Your task to perform on an android device: turn on location history Image 0: 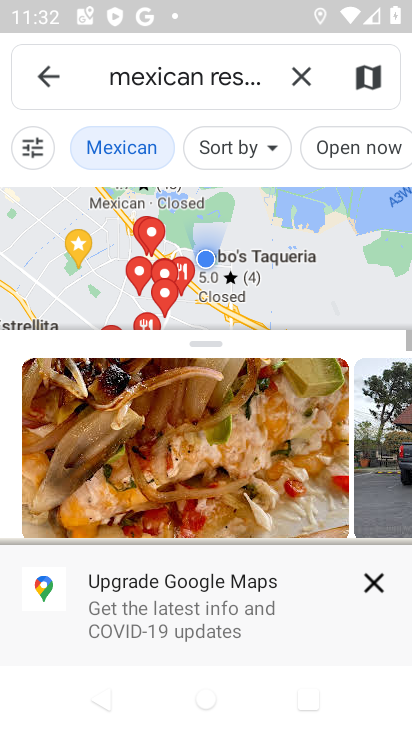
Step 0: press home button
Your task to perform on an android device: turn on location history Image 1: 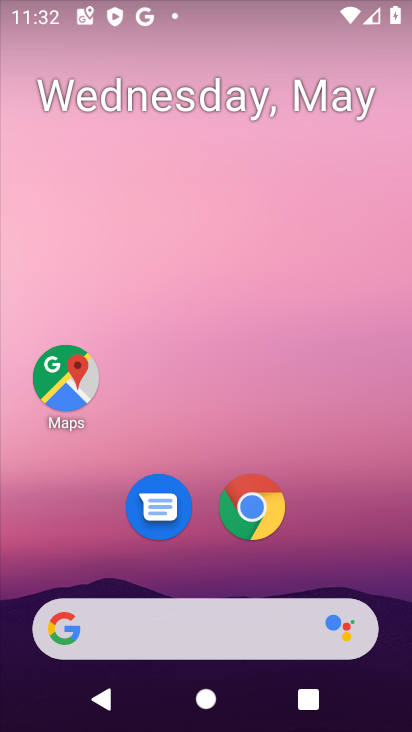
Step 1: click (56, 341)
Your task to perform on an android device: turn on location history Image 2: 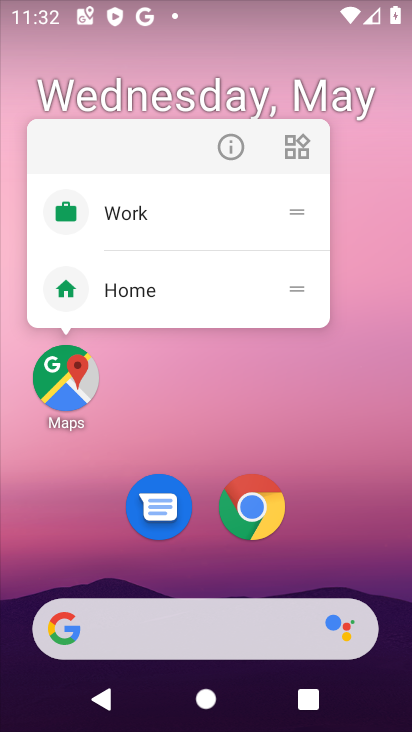
Step 2: click (58, 397)
Your task to perform on an android device: turn on location history Image 3: 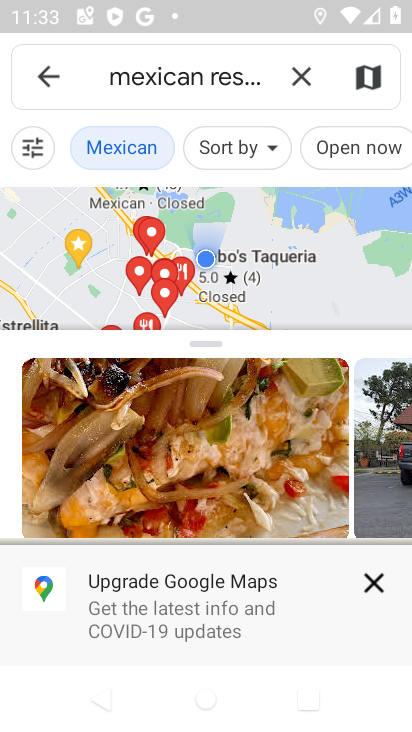
Step 3: click (56, 78)
Your task to perform on an android device: turn on location history Image 4: 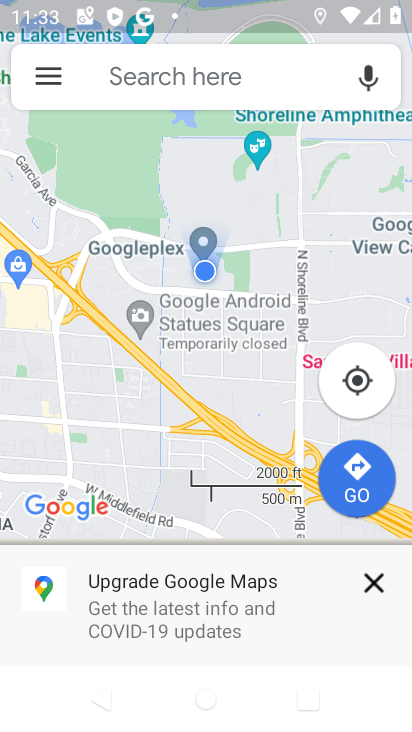
Step 4: click (52, 76)
Your task to perform on an android device: turn on location history Image 5: 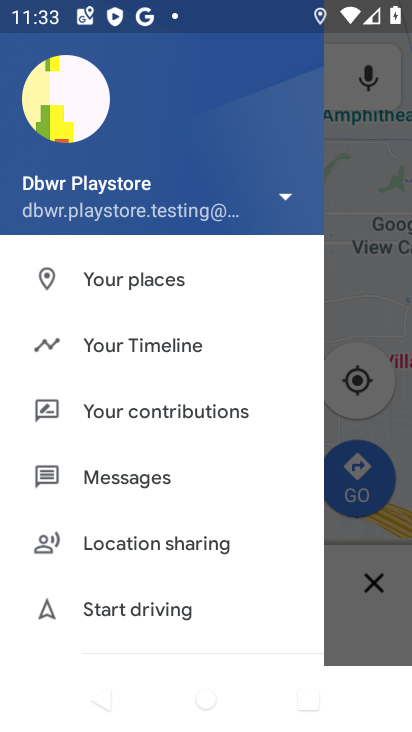
Step 5: drag from (144, 618) to (150, 726)
Your task to perform on an android device: turn on location history Image 6: 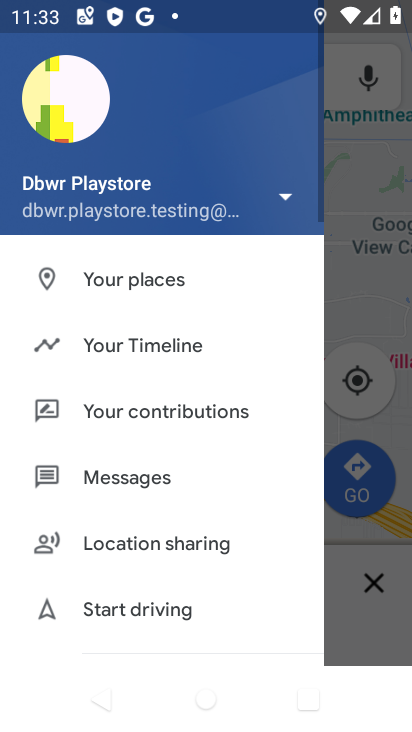
Step 6: click (105, 353)
Your task to perform on an android device: turn on location history Image 7: 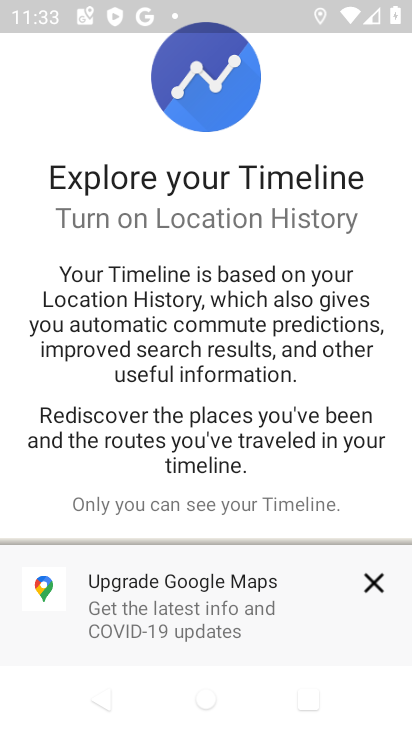
Step 7: click (393, 587)
Your task to perform on an android device: turn on location history Image 8: 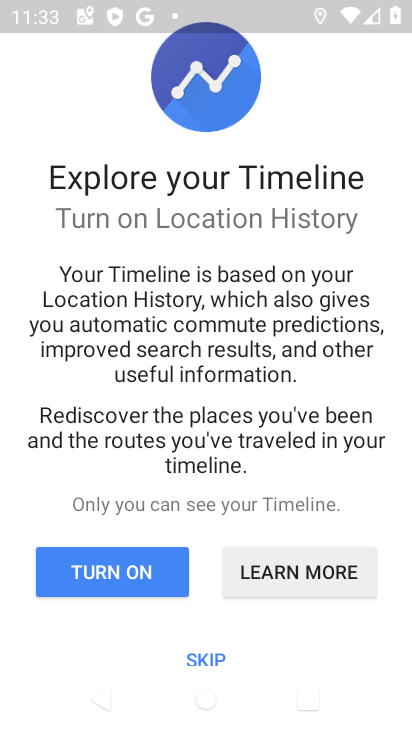
Step 8: click (105, 582)
Your task to perform on an android device: turn on location history Image 9: 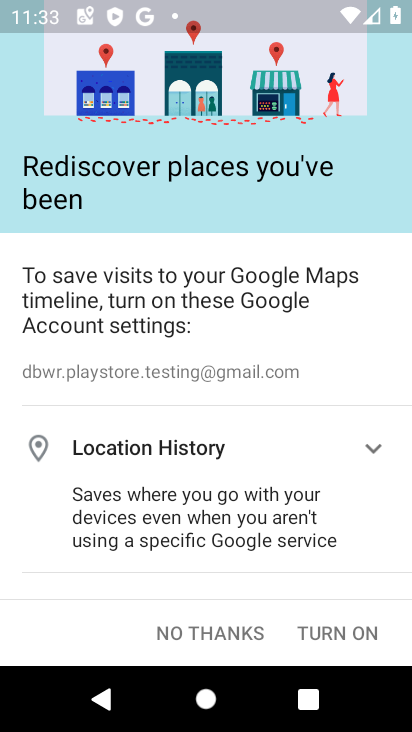
Step 9: drag from (278, 547) to (288, 199)
Your task to perform on an android device: turn on location history Image 10: 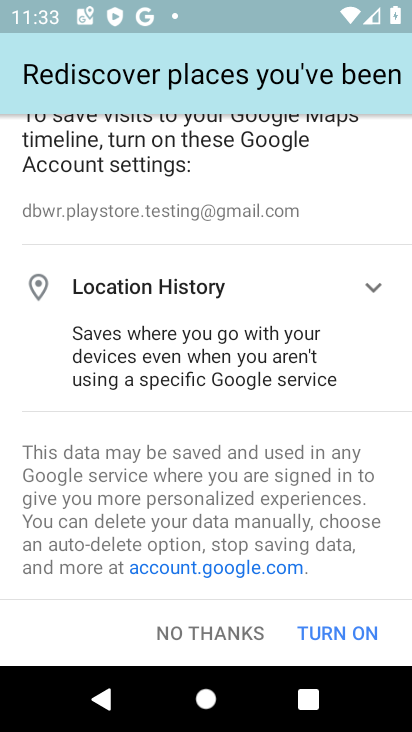
Step 10: click (343, 632)
Your task to perform on an android device: turn on location history Image 11: 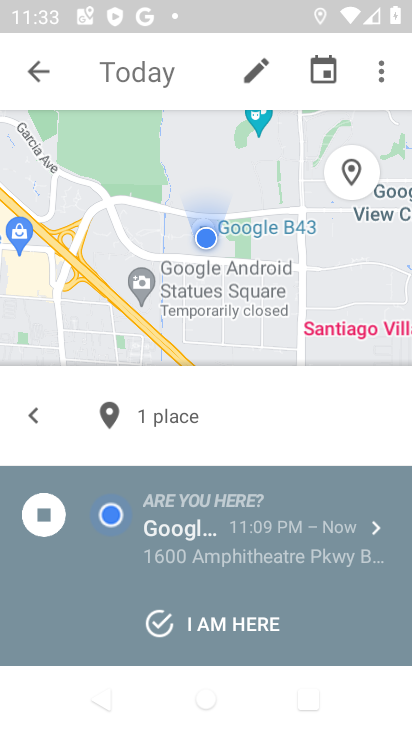
Step 11: task complete